Your task to perform on an android device: toggle sleep mode Image 0: 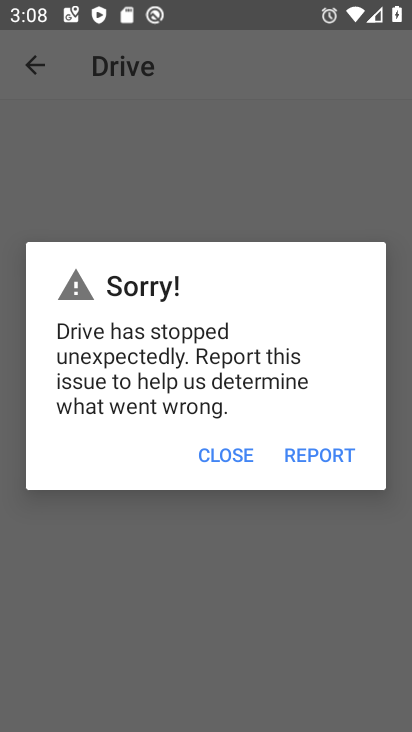
Step 0: drag from (230, 725) to (152, 151)
Your task to perform on an android device: toggle sleep mode Image 1: 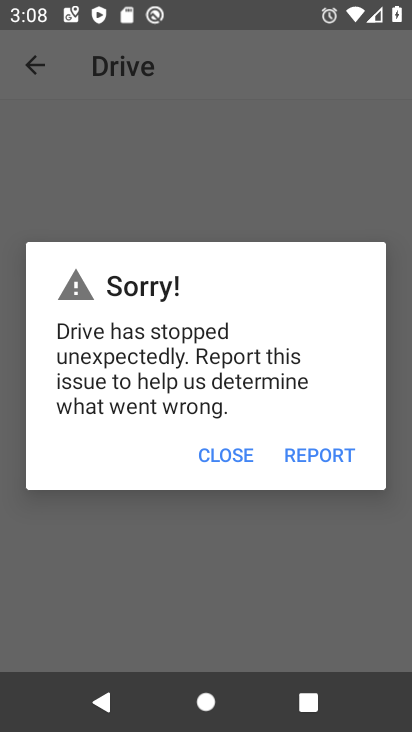
Step 1: press home button
Your task to perform on an android device: toggle sleep mode Image 2: 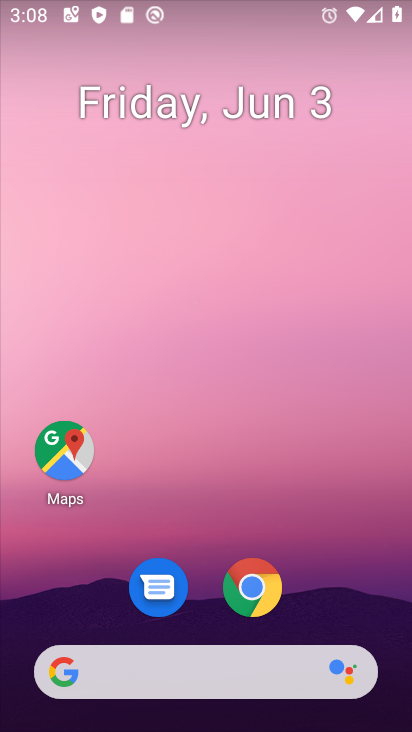
Step 2: drag from (221, 720) to (211, 296)
Your task to perform on an android device: toggle sleep mode Image 3: 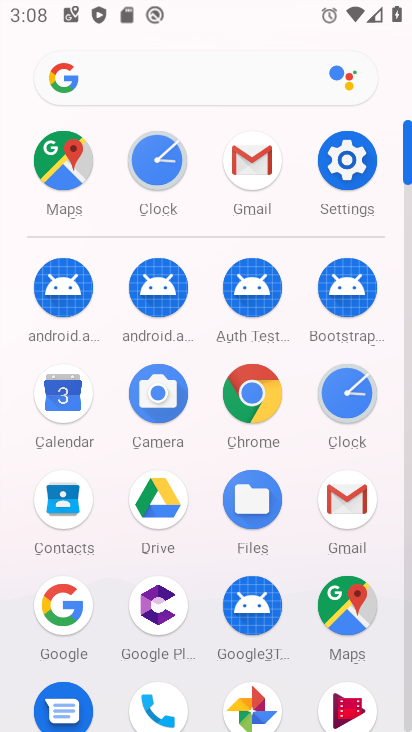
Step 3: click (357, 155)
Your task to perform on an android device: toggle sleep mode Image 4: 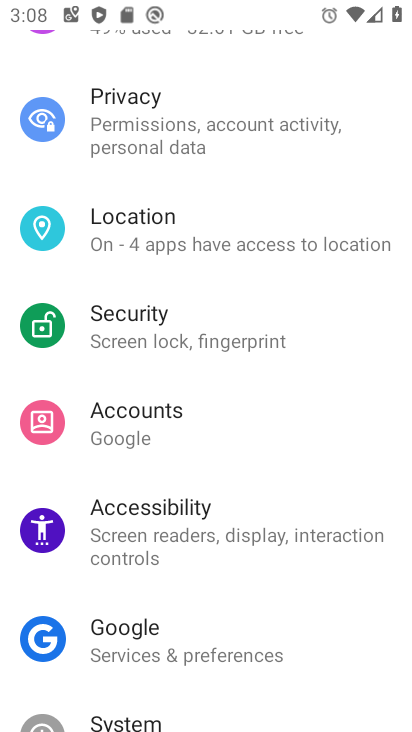
Step 4: task complete